Your task to perform on an android device: change alarm snooze length Image 0: 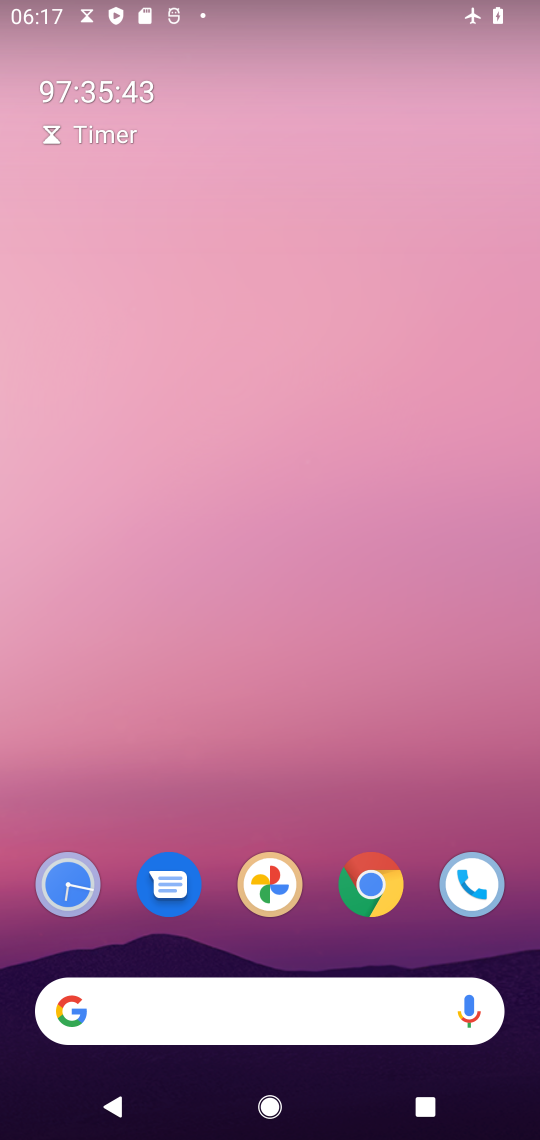
Step 0: drag from (232, 934) to (253, 310)
Your task to perform on an android device: change alarm snooze length Image 1: 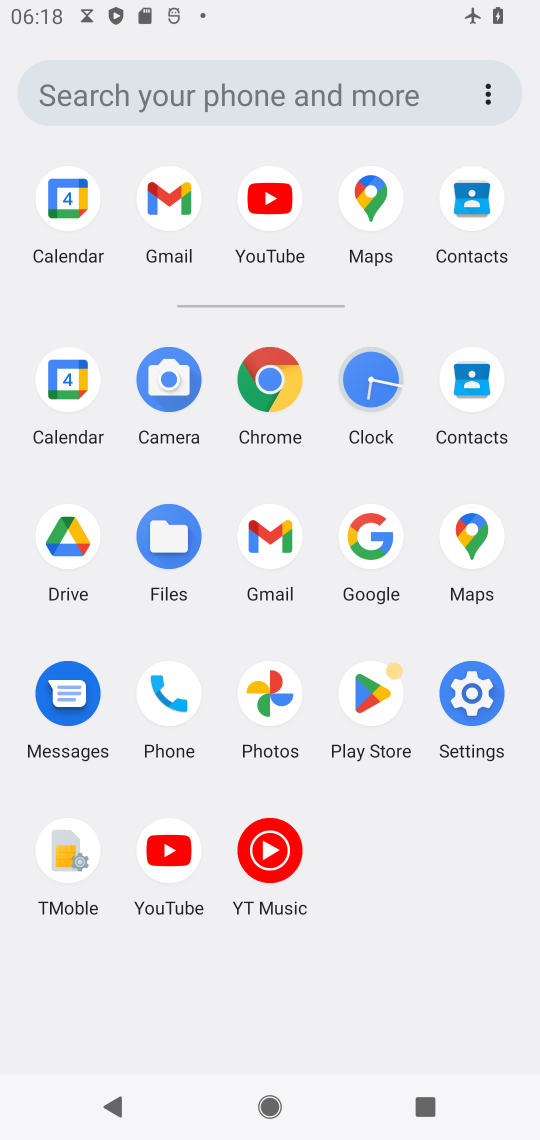
Step 1: click (376, 378)
Your task to perform on an android device: change alarm snooze length Image 2: 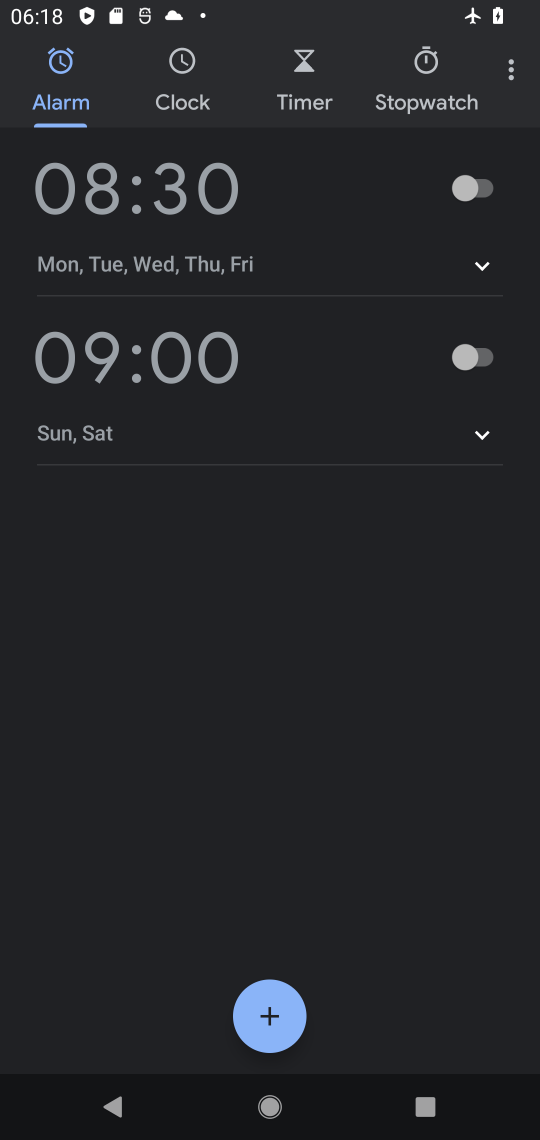
Step 2: click (507, 74)
Your task to perform on an android device: change alarm snooze length Image 3: 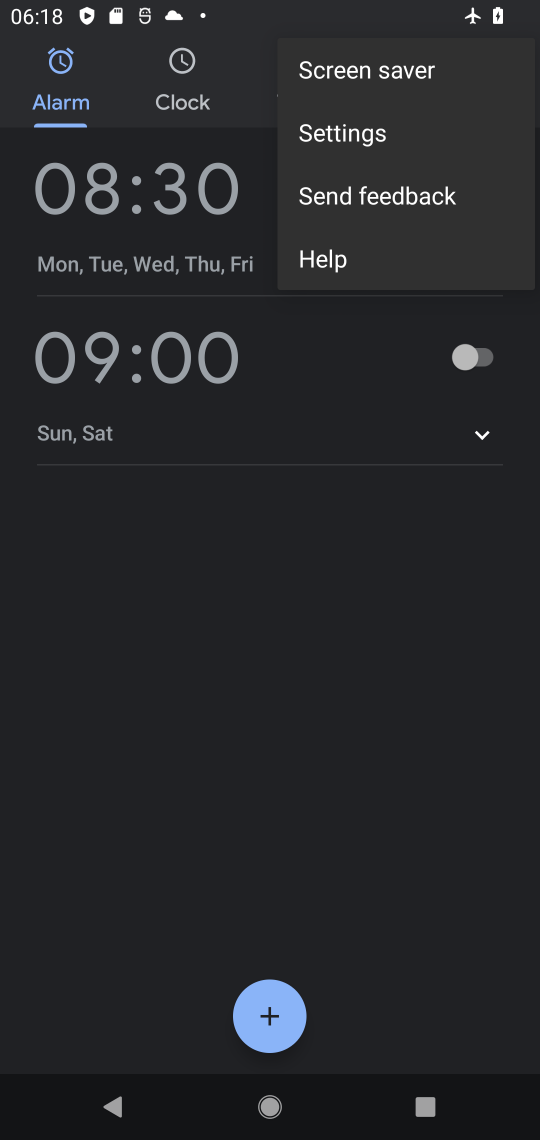
Step 3: click (365, 145)
Your task to perform on an android device: change alarm snooze length Image 4: 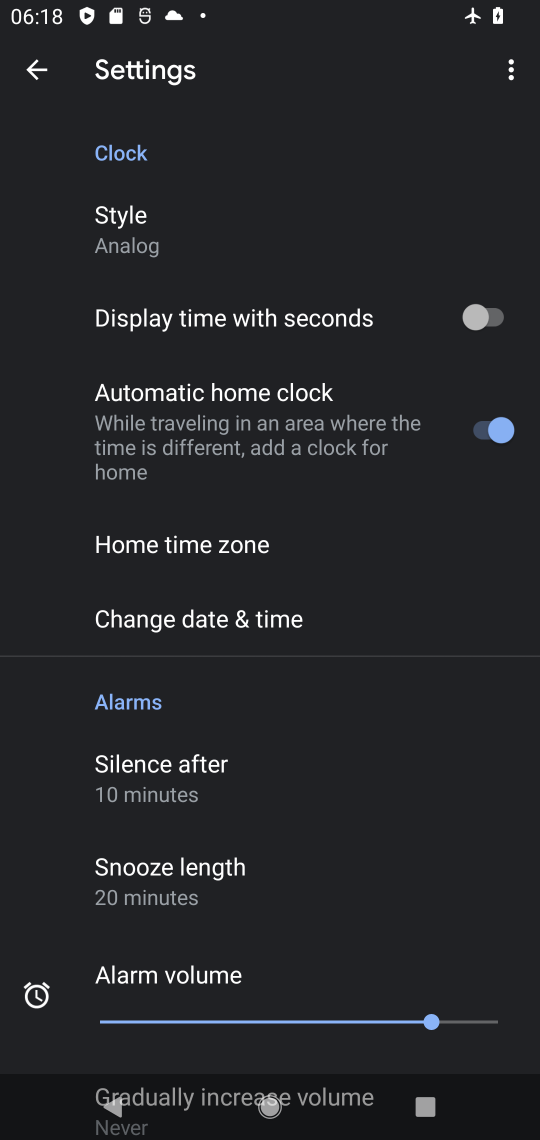
Step 4: click (262, 882)
Your task to perform on an android device: change alarm snooze length Image 5: 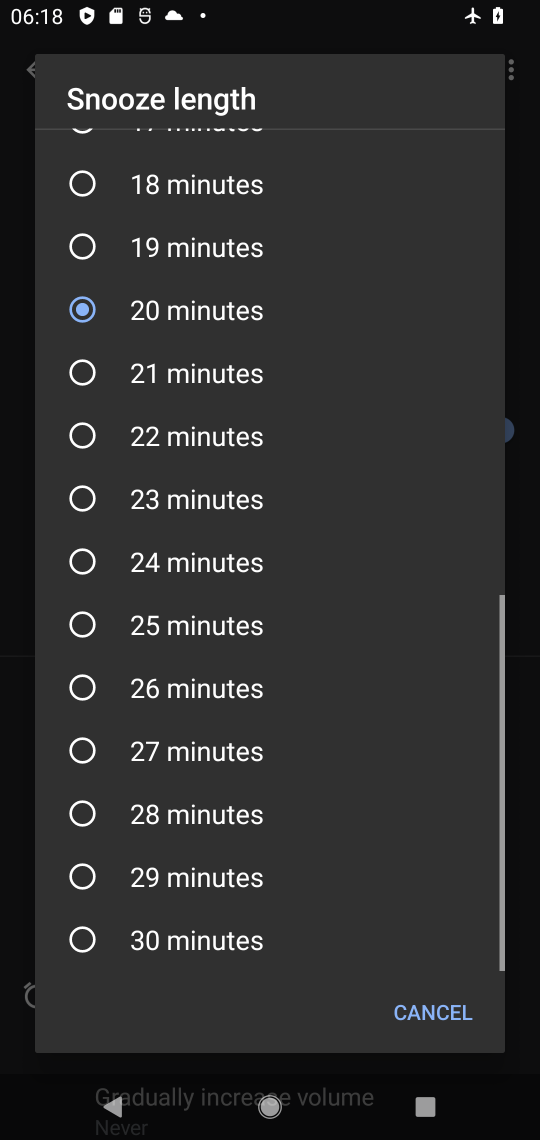
Step 5: click (148, 926)
Your task to perform on an android device: change alarm snooze length Image 6: 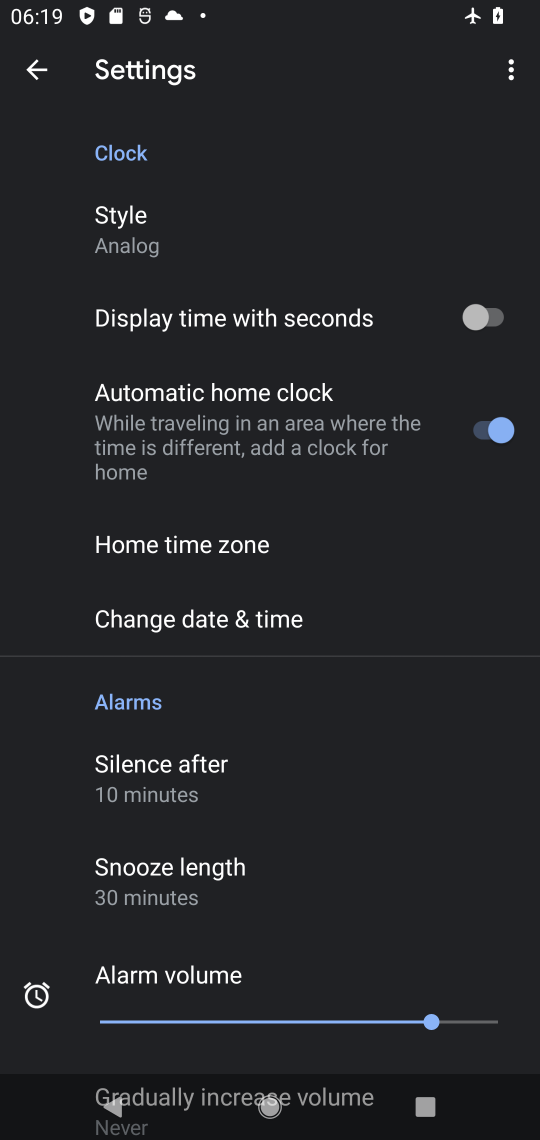
Step 6: task complete